Your task to perform on an android device: uninstall "Google Translate" Image 0: 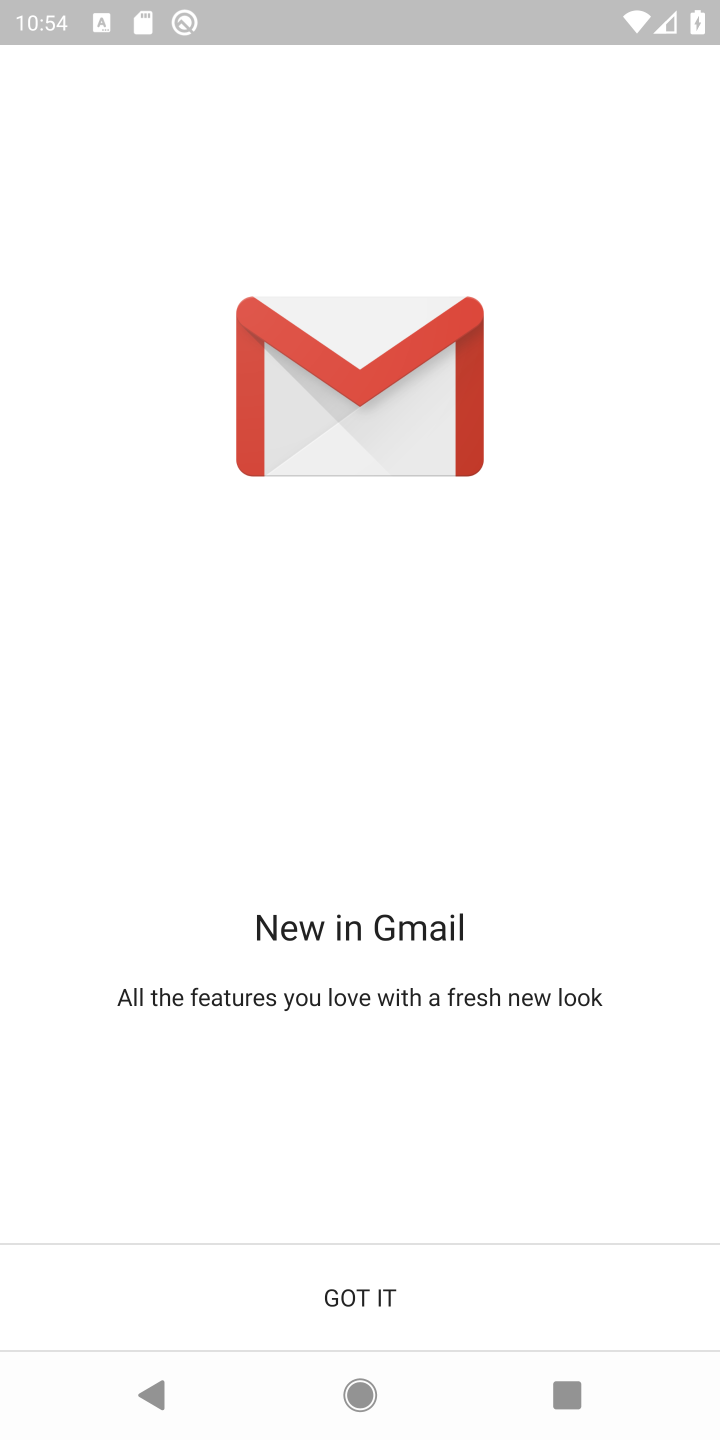
Step 0: press home button
Your task to perform on an android device: uninstall "Google Translate" Image 1: 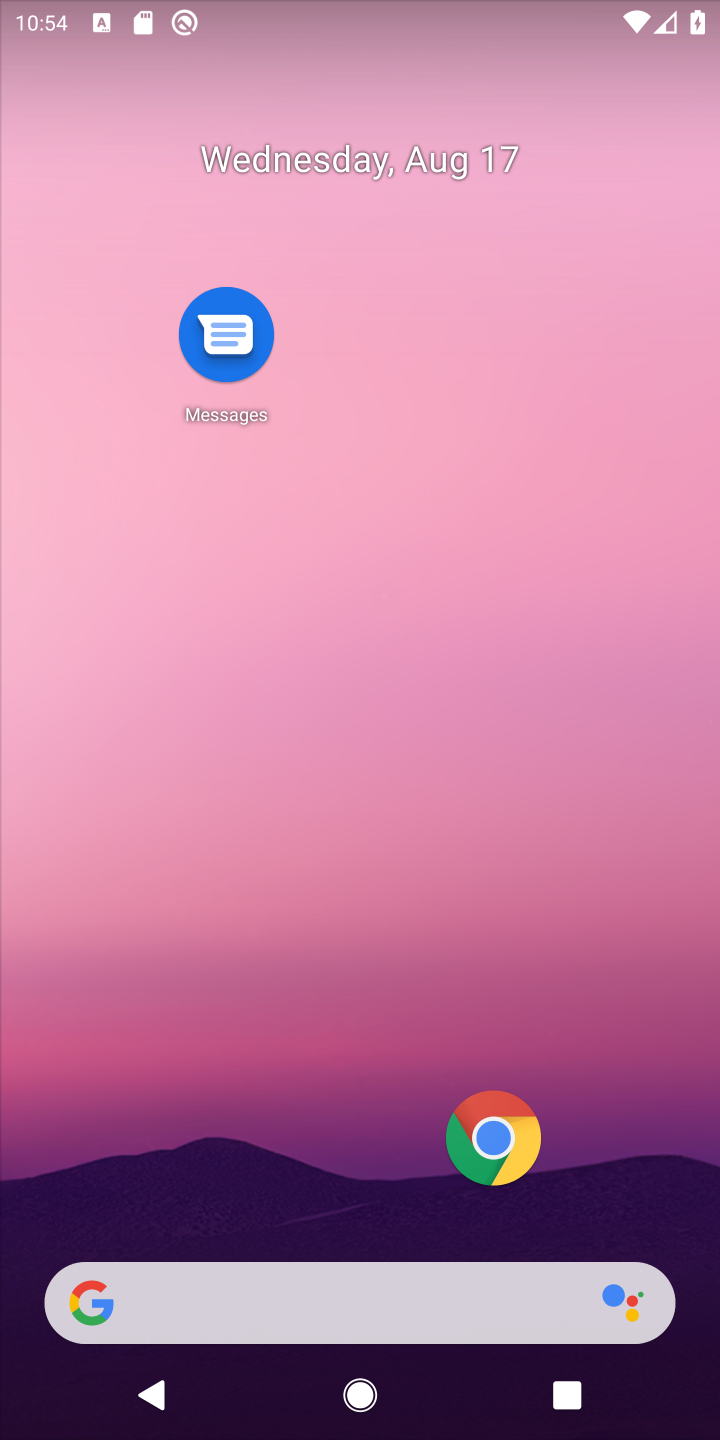
Step 1: drag from (335, 1167) to (472, 439)
Your task to perform on an android device: uninstall "Google Translate" Image 2: 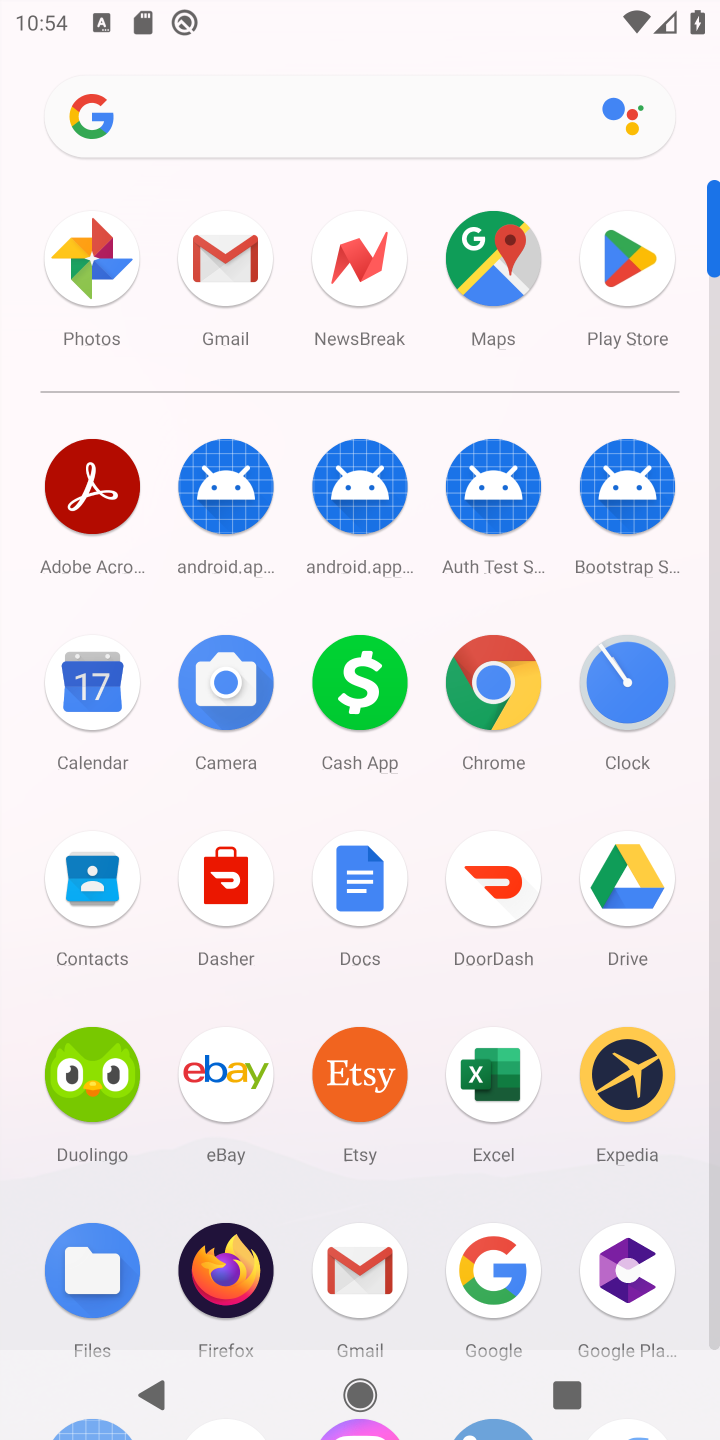
Step 2: click (609, 783)
Your task to perform on an android device: uninstall "Google Translate" Image 3: 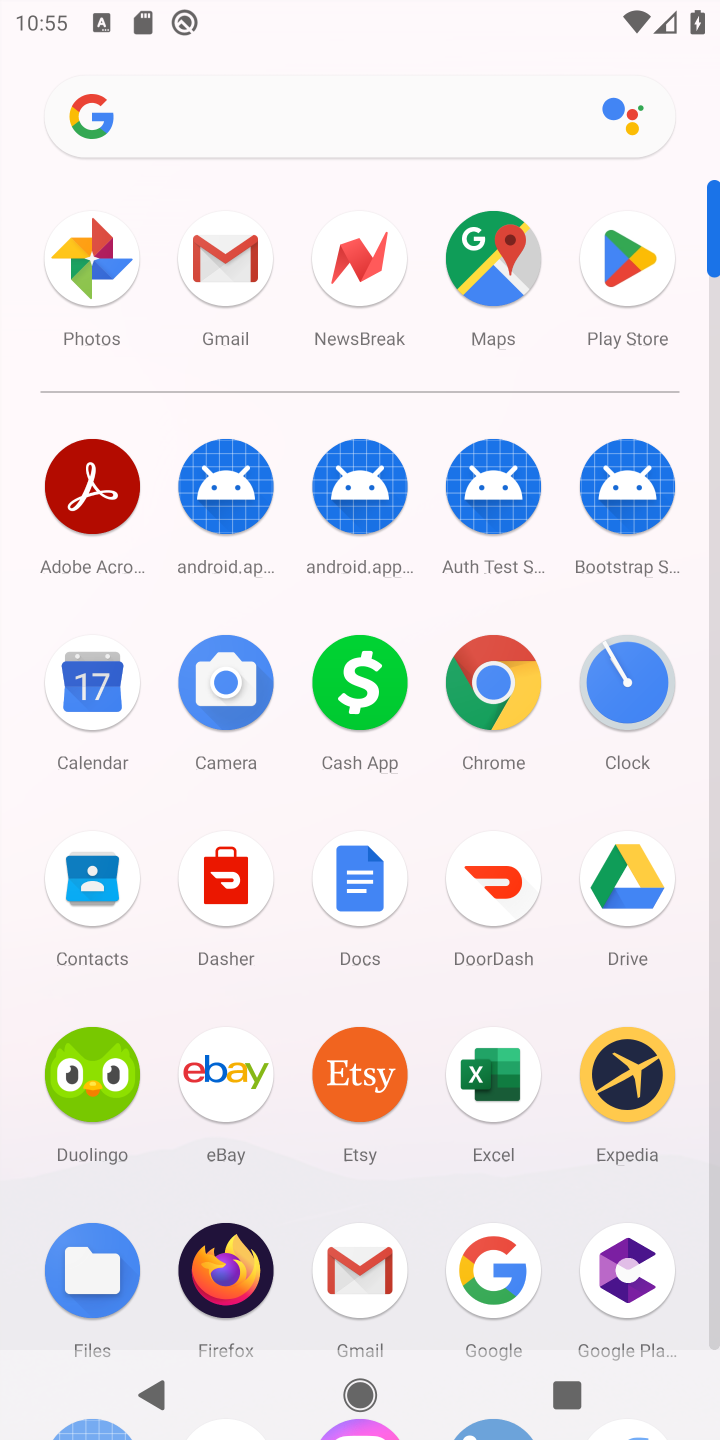
Step 3: click (632, 271)
Your task to perform on an android device: uninstall "Google Translate" Image 4: 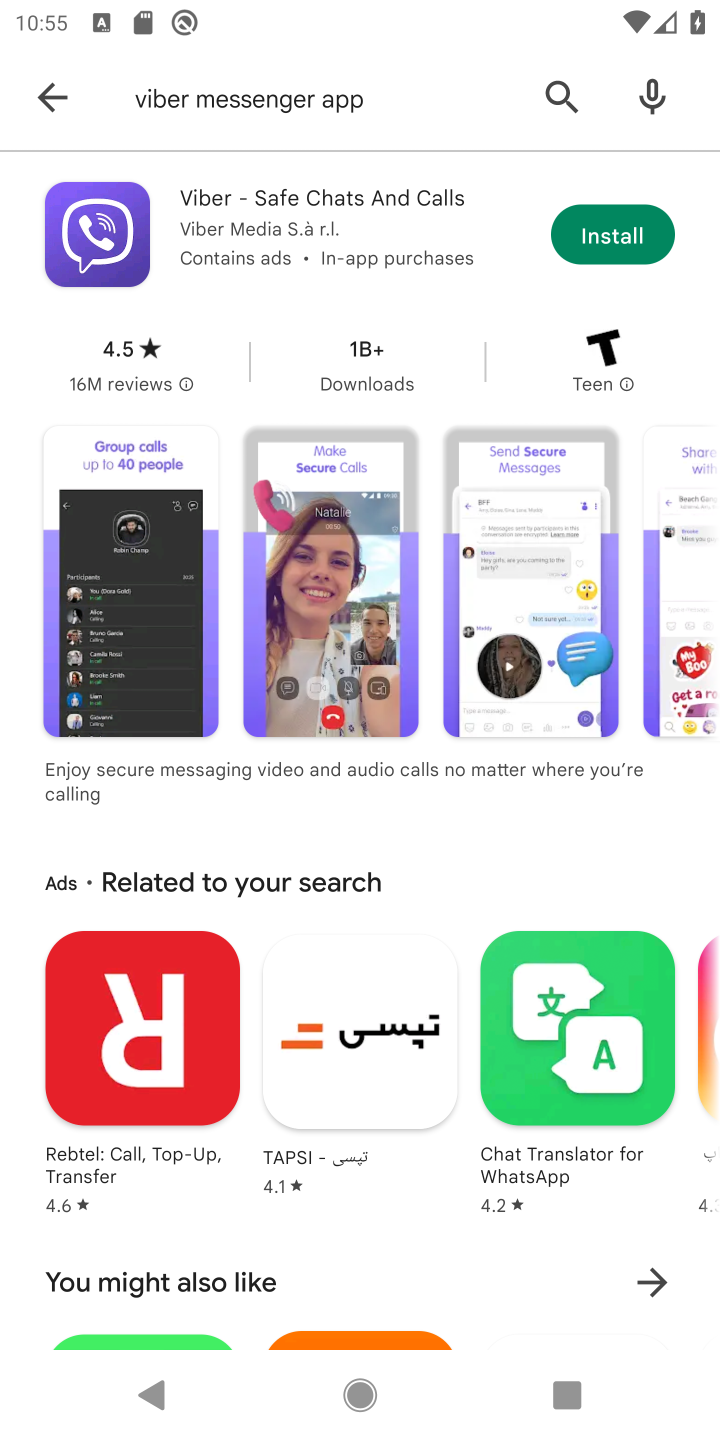
Step 4: click (24, 95)
Your task to perform on an android device: uninstall "Google Translate" Image 5: 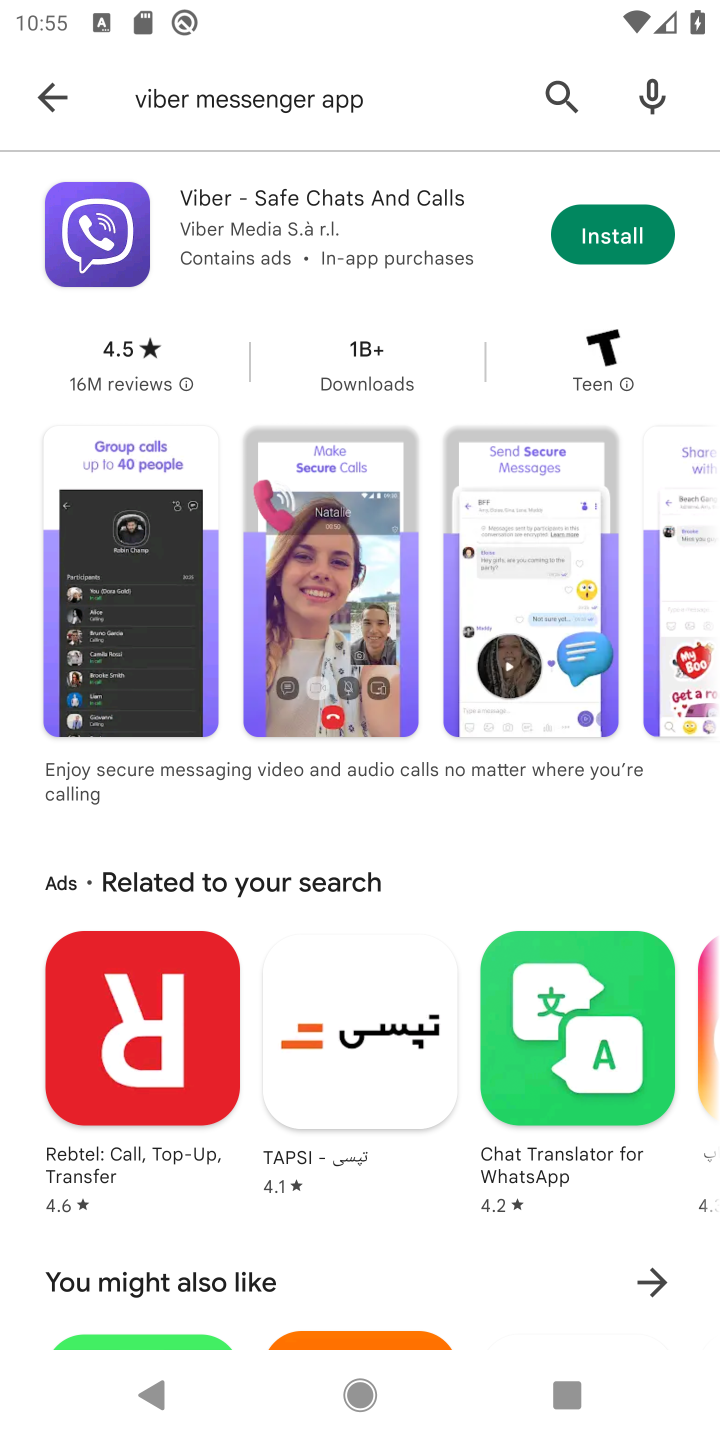
Step 5: click (462, 1147)
Your task to perform on an android device: uninstall "Google Translate" Image 6: 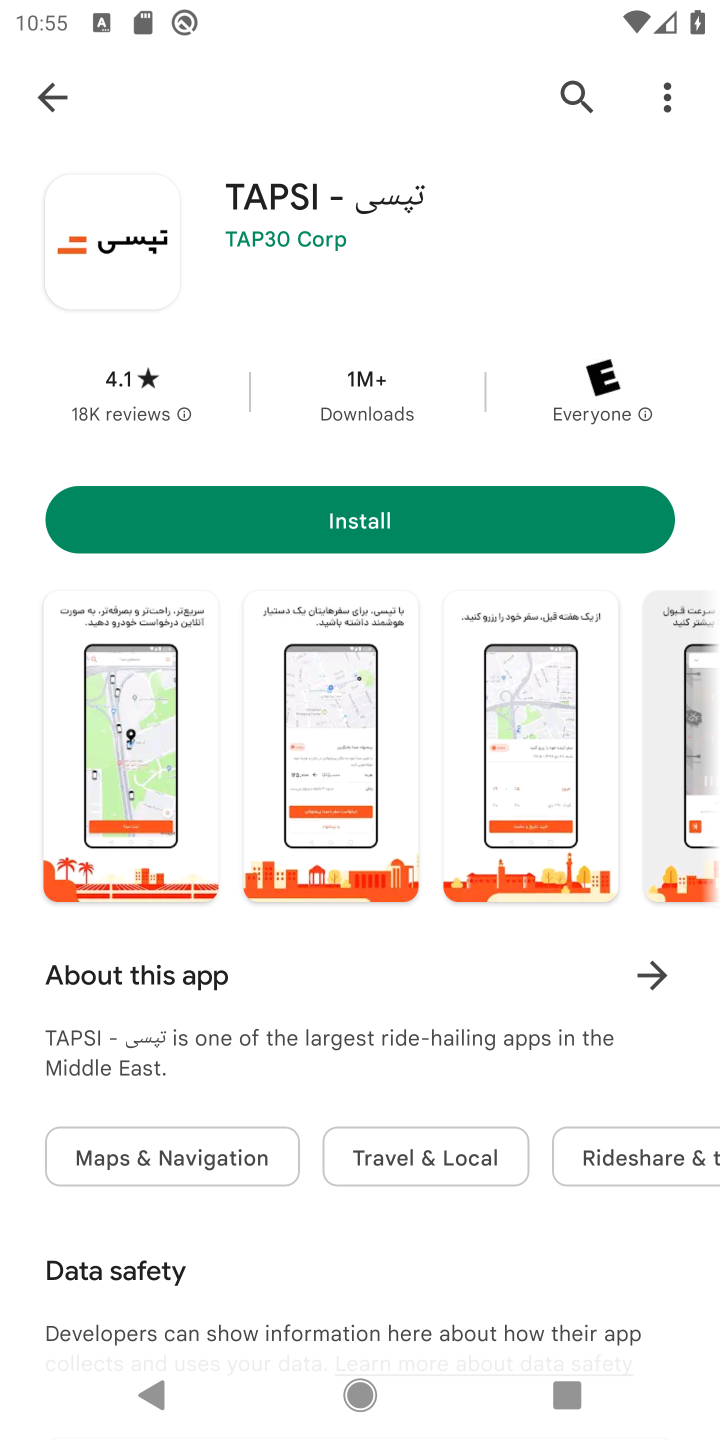
Step 6: click (601, 109)
Your task to perform on an android device: uninstall "Google Translate" Image 7: 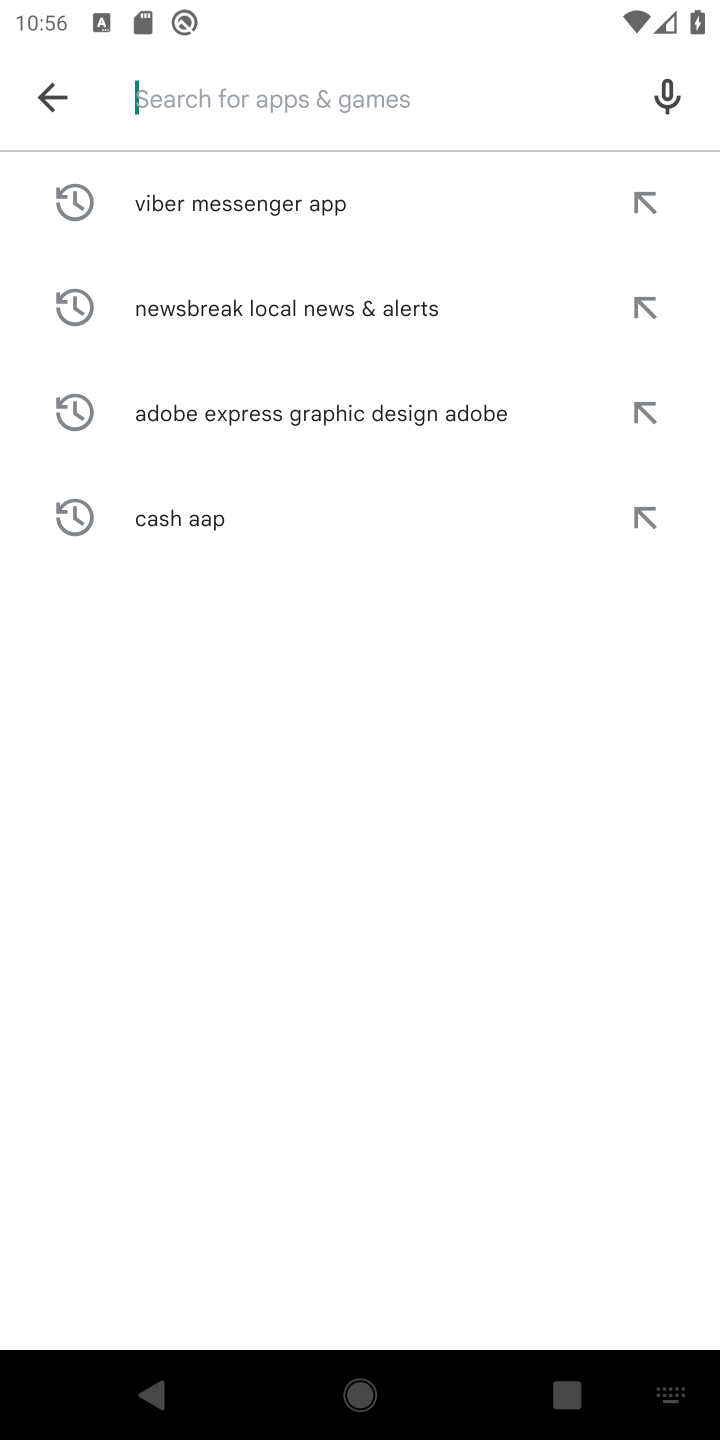
Step 7: click (350, 109)
Your task to perform on an android device: uninstall "Google Translate" Image 8: 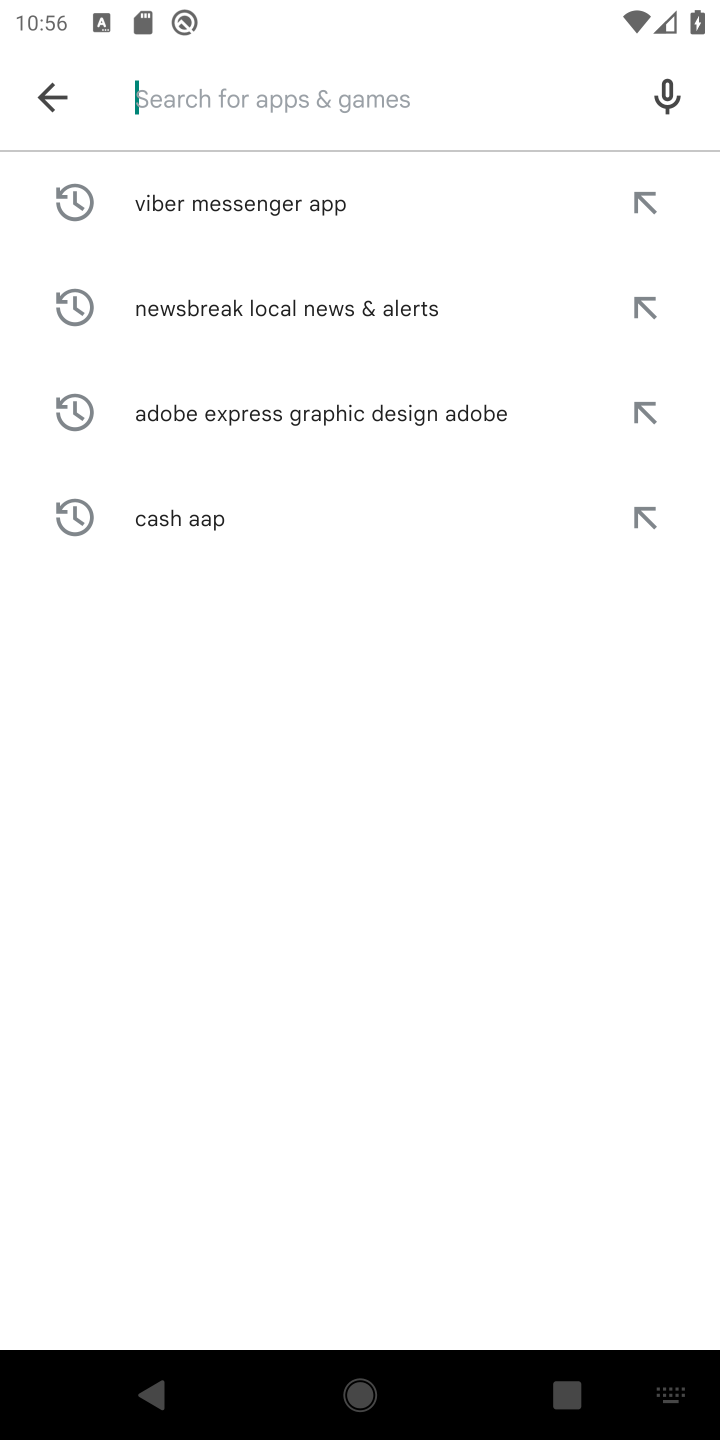
Step 8: type "Google Translate "
Your task to perform on an android device: uninstall "Google Translate" Image 9: 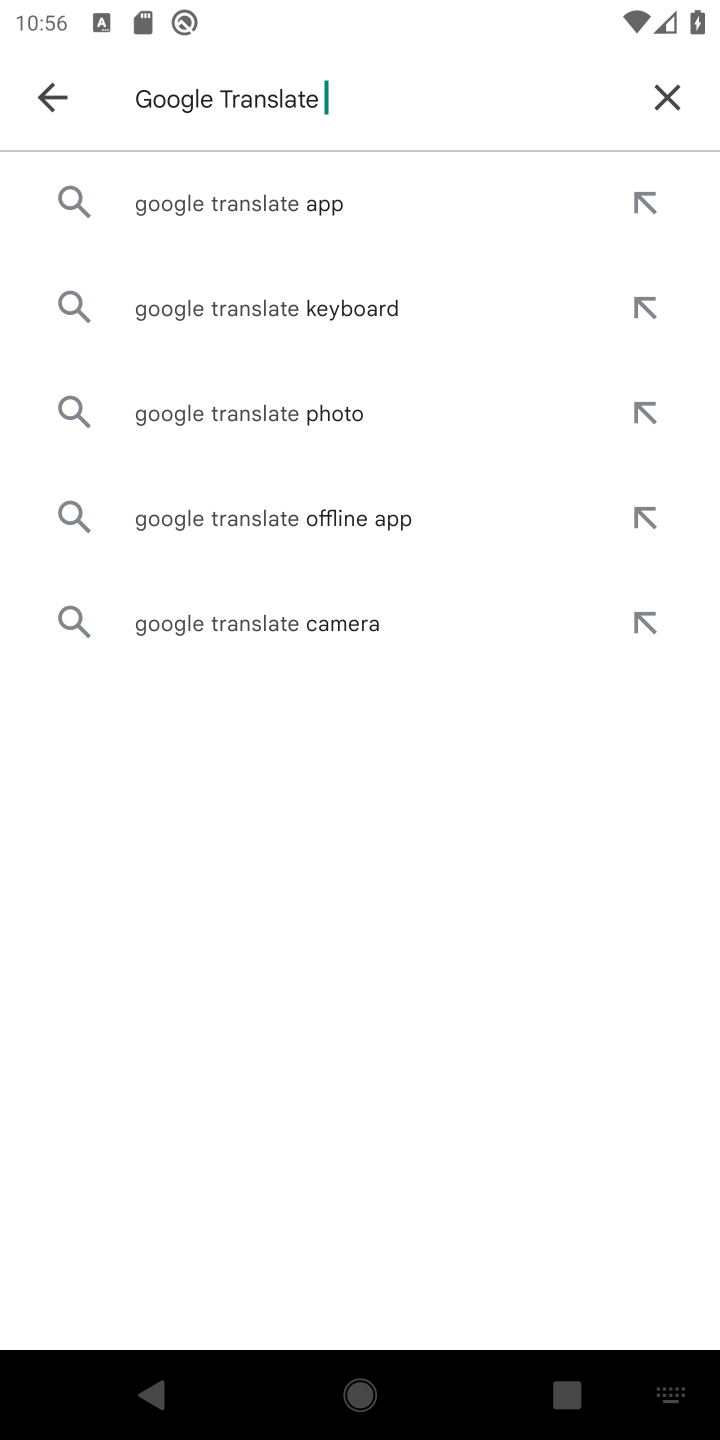
Step 9: click (322, 199)
Your task to perform on an android device: uninstall "Google Translate" Image 10: 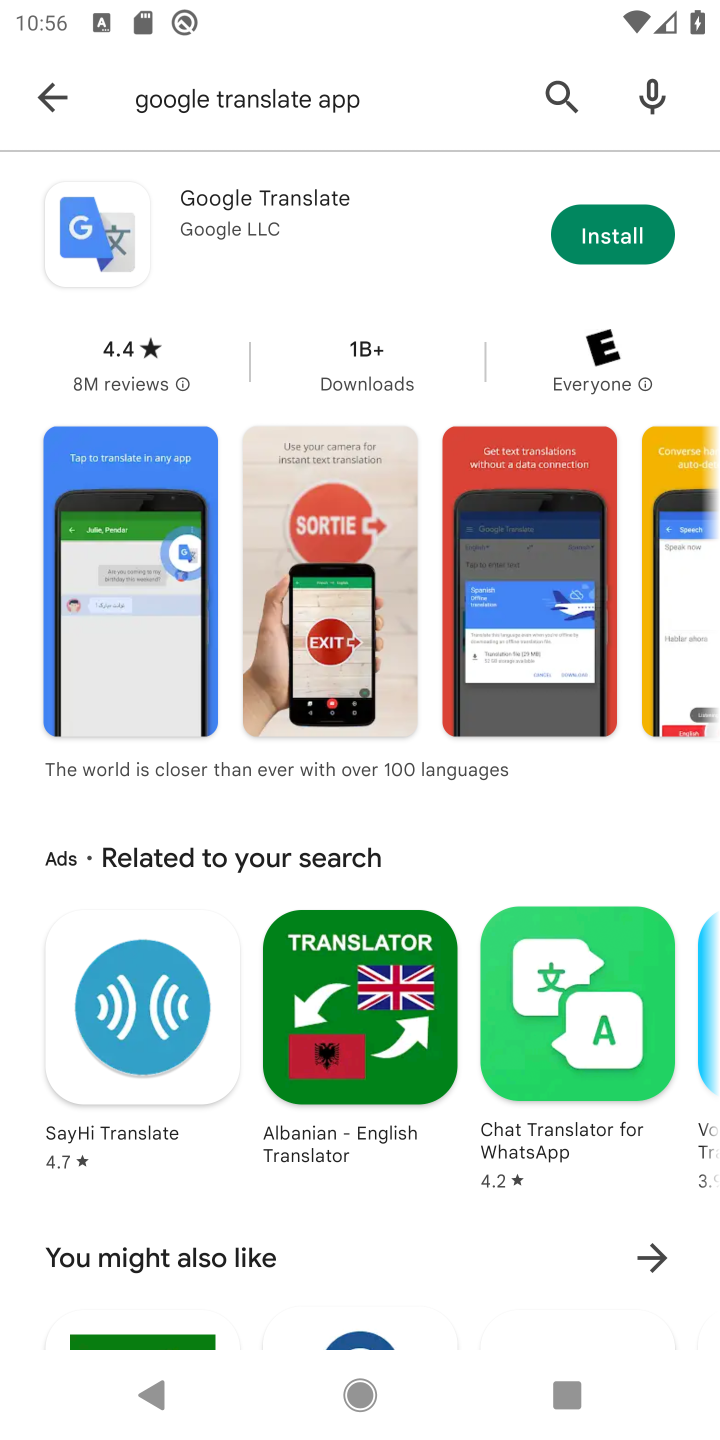
Step 10: click (636, 239)
Your task to perform on an android device: uninstall "Google Translate" Image 11: 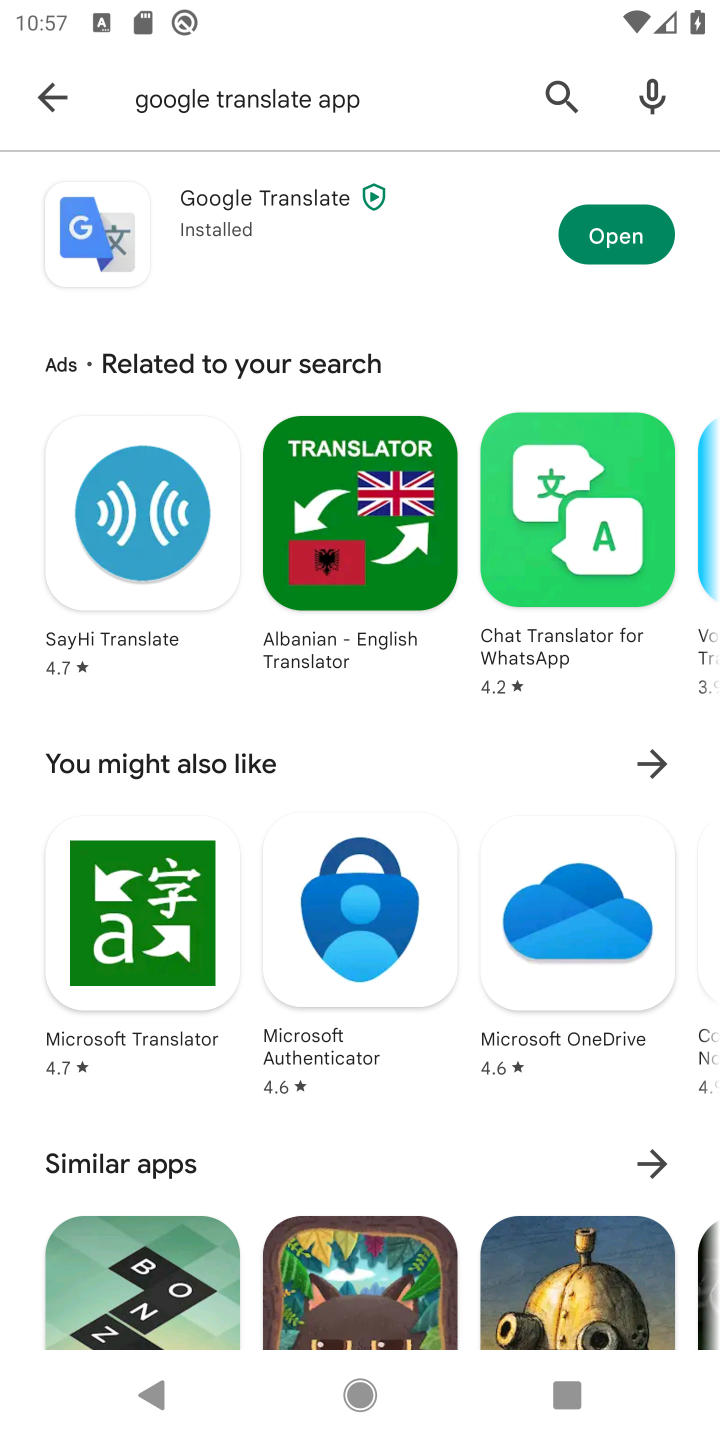
Step 11: click (406, 201)
Your task to perform on an android device: uninstall "Google Translate" Image 12: 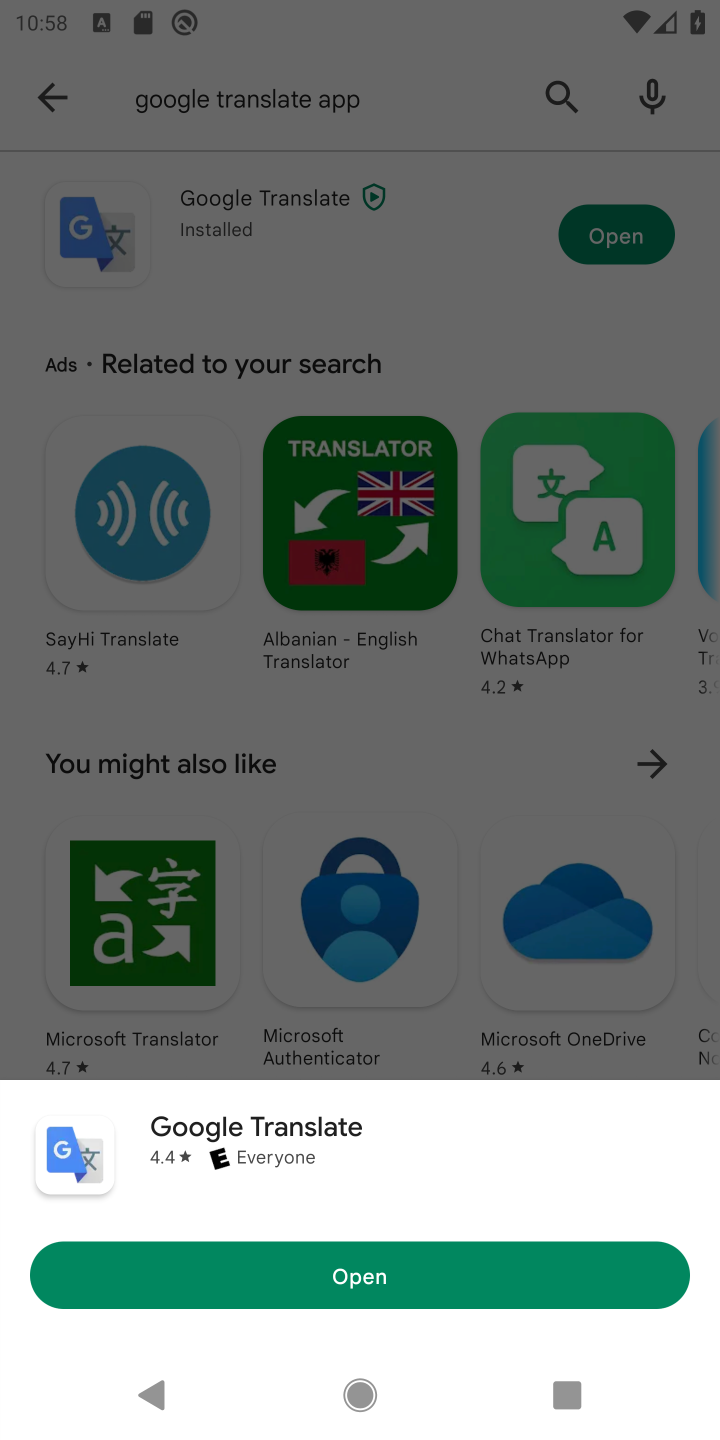
Step 12: click (186, 223)
Your task to perform on an android device: uninstall "Google Translate" Image 13: 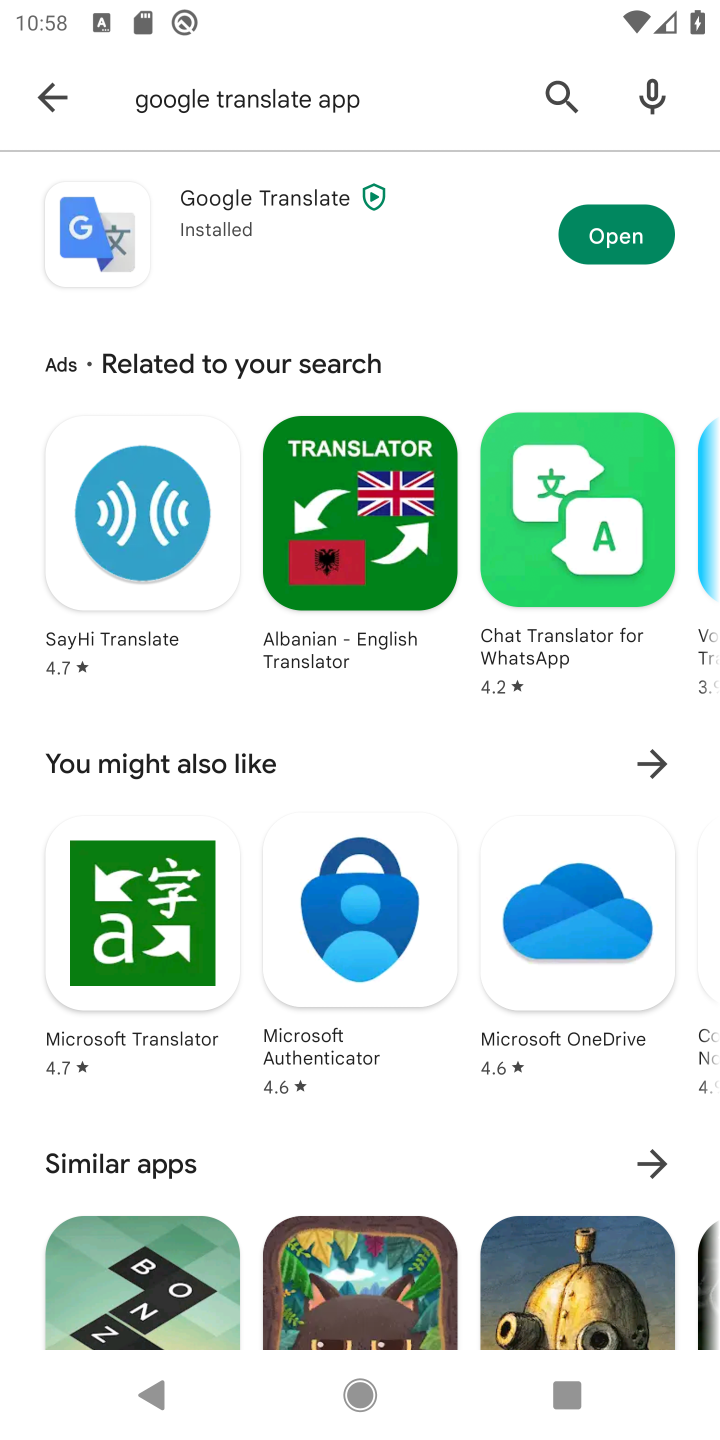
Step 13: click (219, 215)
Your task to perform on an android device: uninstall "Google Translate" Image 14: 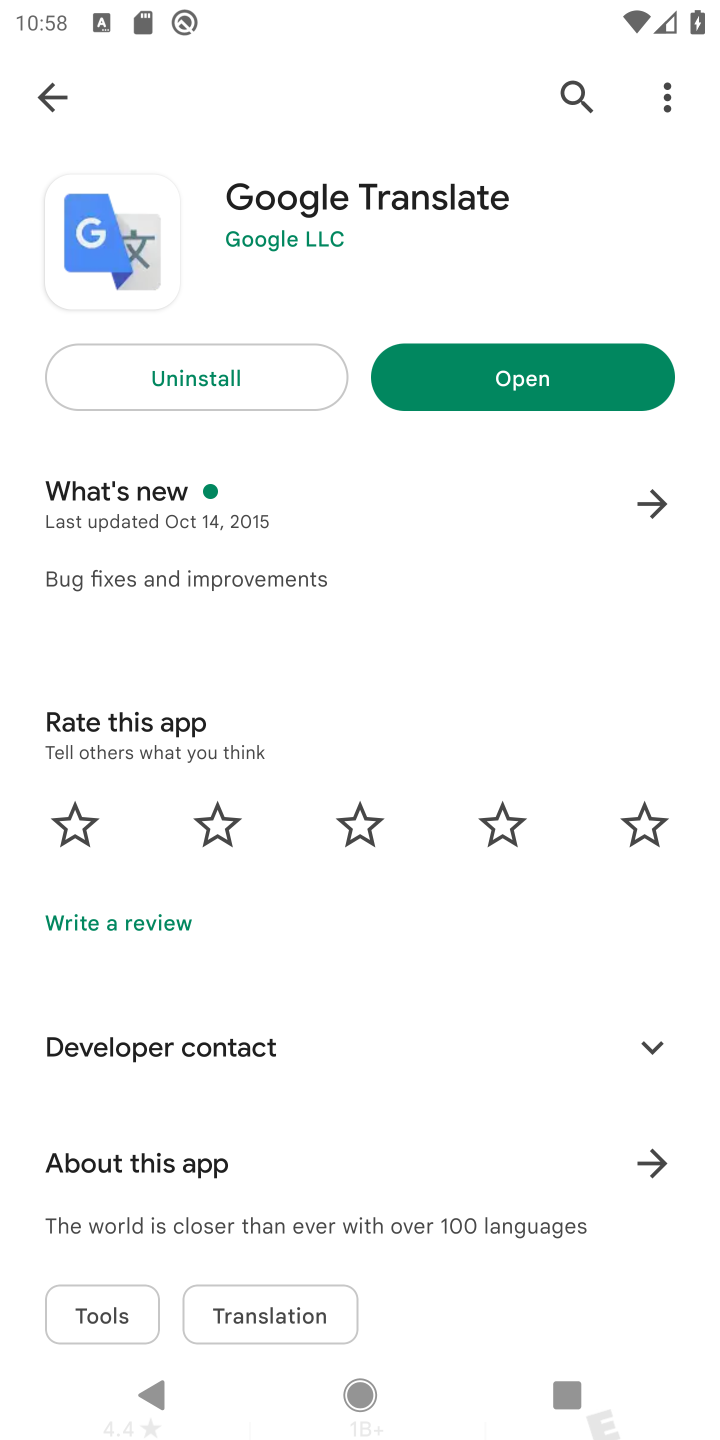
Step 14: click (184, 363)
Your task to perform on an android device: uninstall "Google Translate" Image 15: 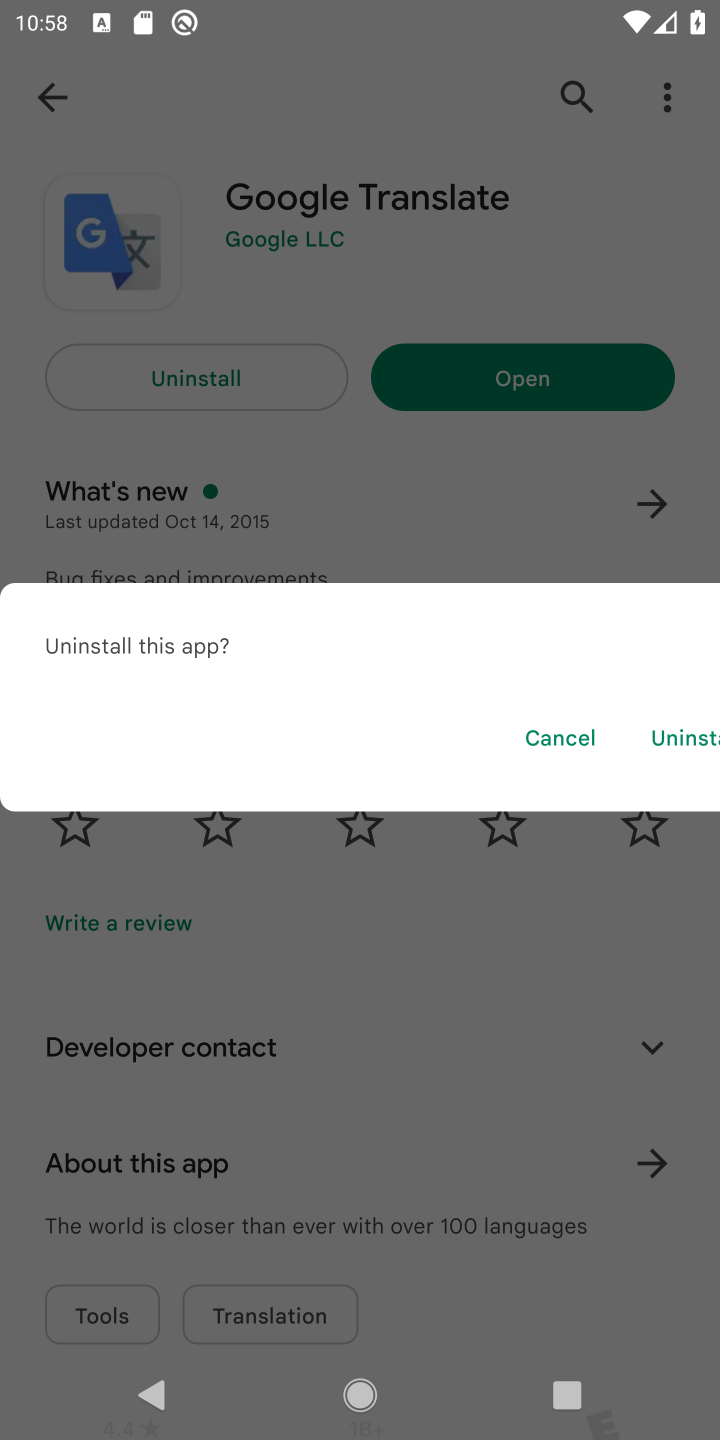
Step 15: click (685, 712)
Your task to perform on an android device: uninstall "Google Translate" Image 16: 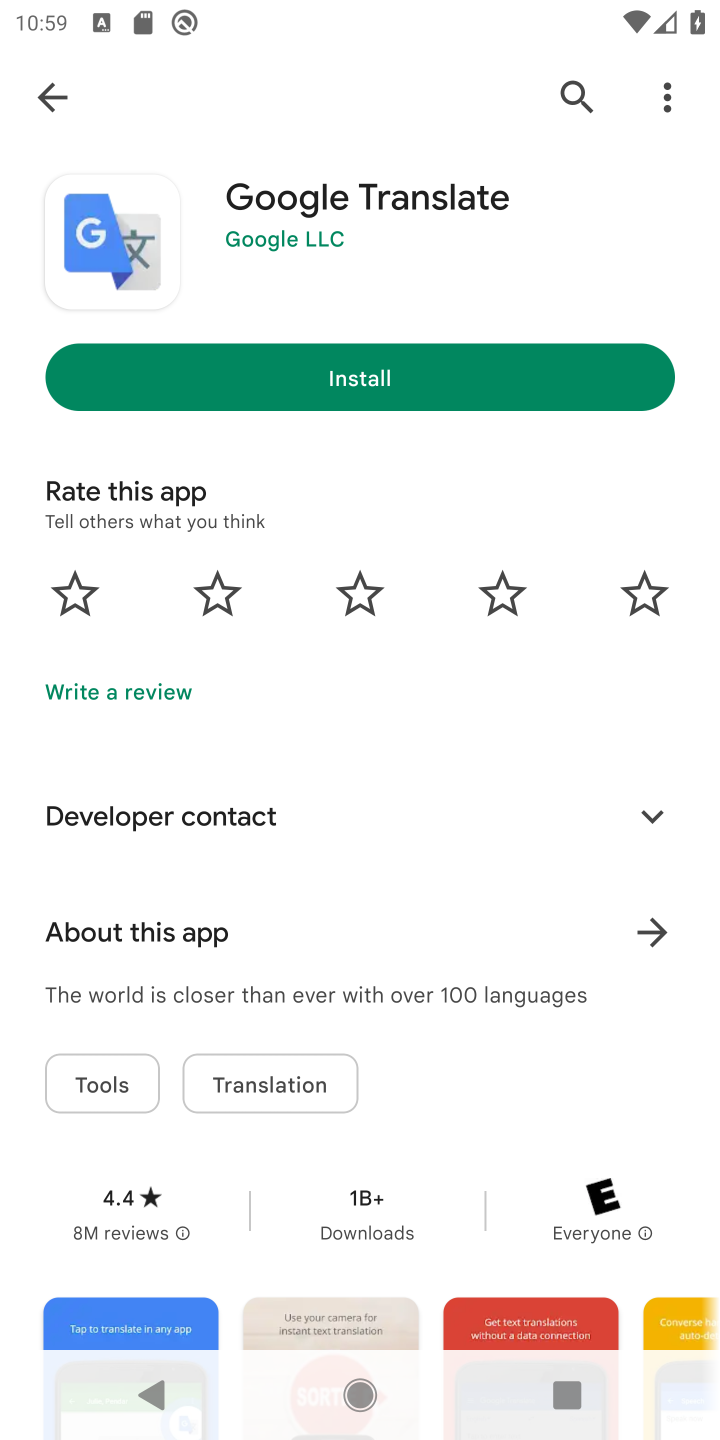
Step 16: task complete